Your task to perform on an android device: change the clock style Image 0: 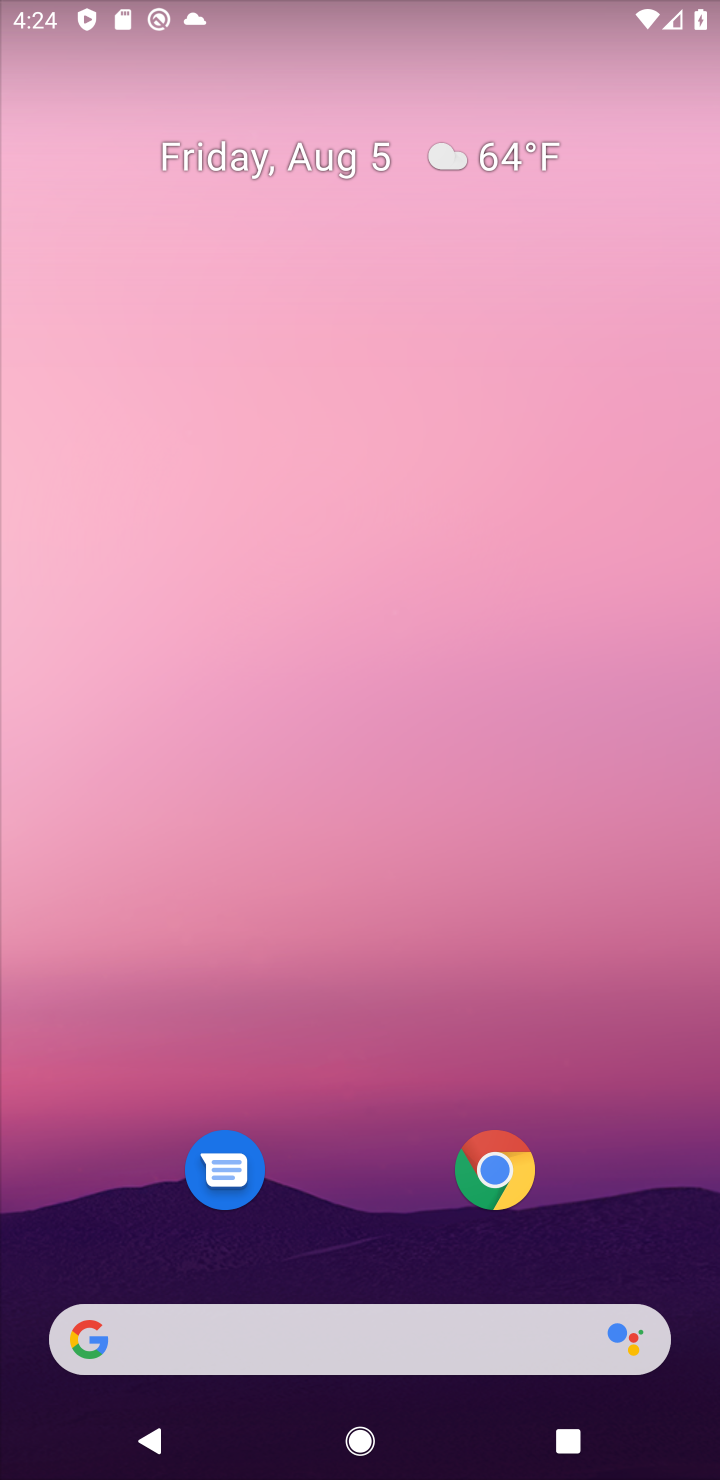
Step 0: press home button
Your task to perform on an android device: change the clock style Image 1: 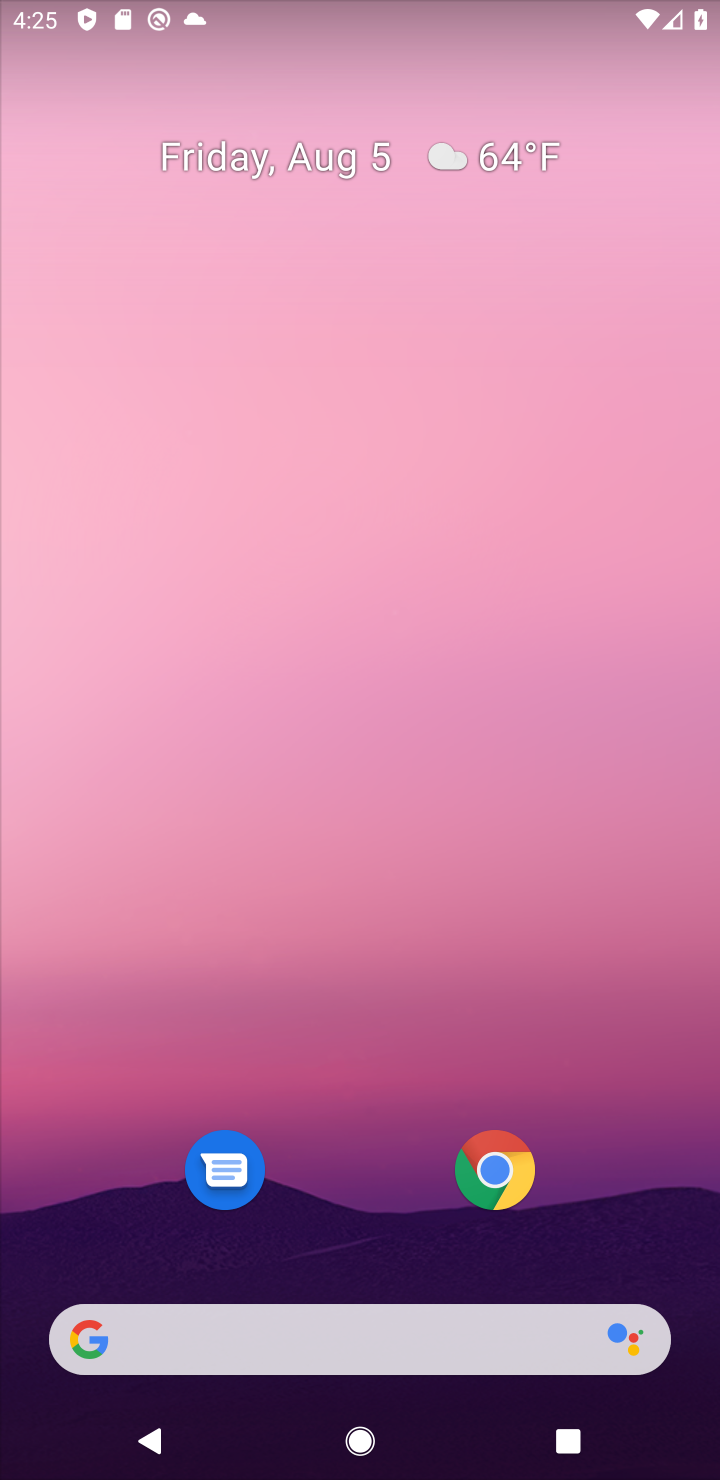
Step 1: drag from (387, 1285) to (359, 426)
Your task to perform on an android device: change the clock style Image 2: 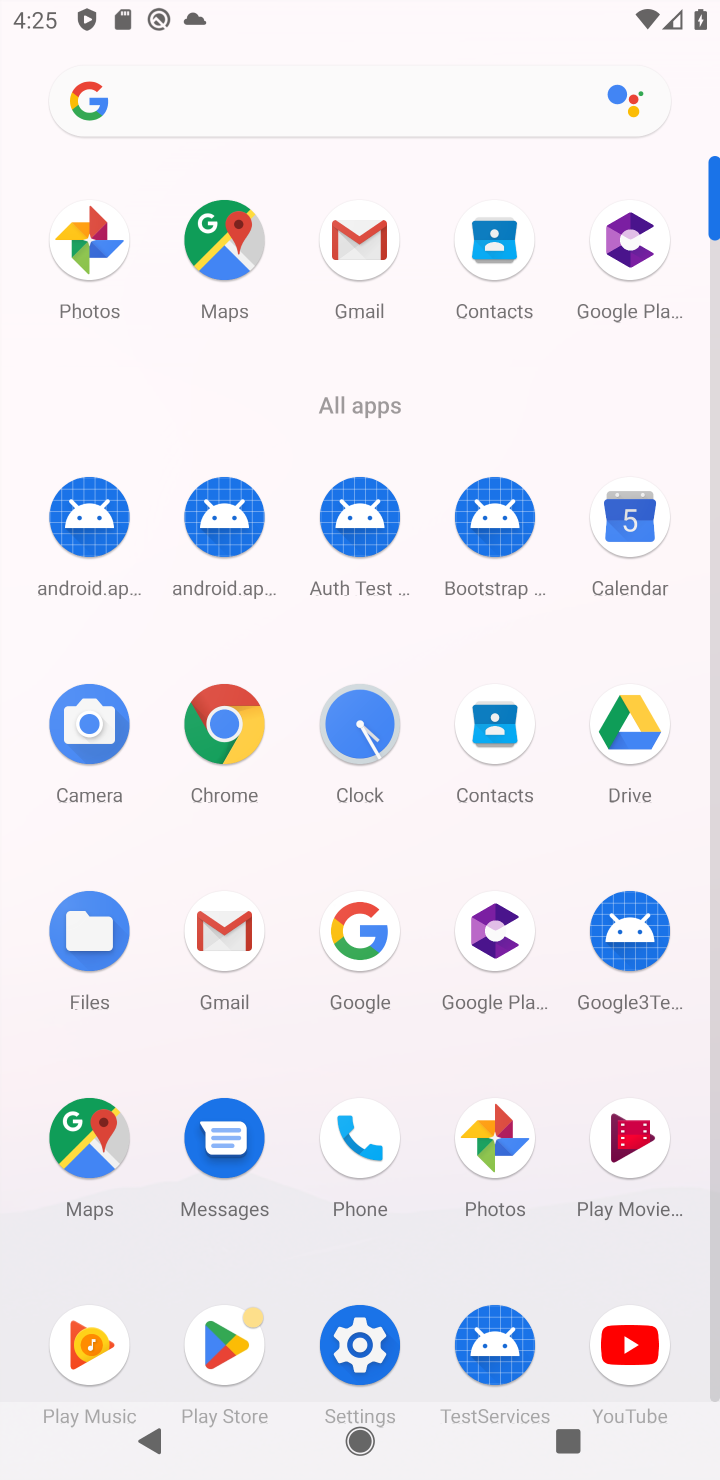
Step 2: click (339, 743)
Your task to perform on an android device: change the clock style Image 3: 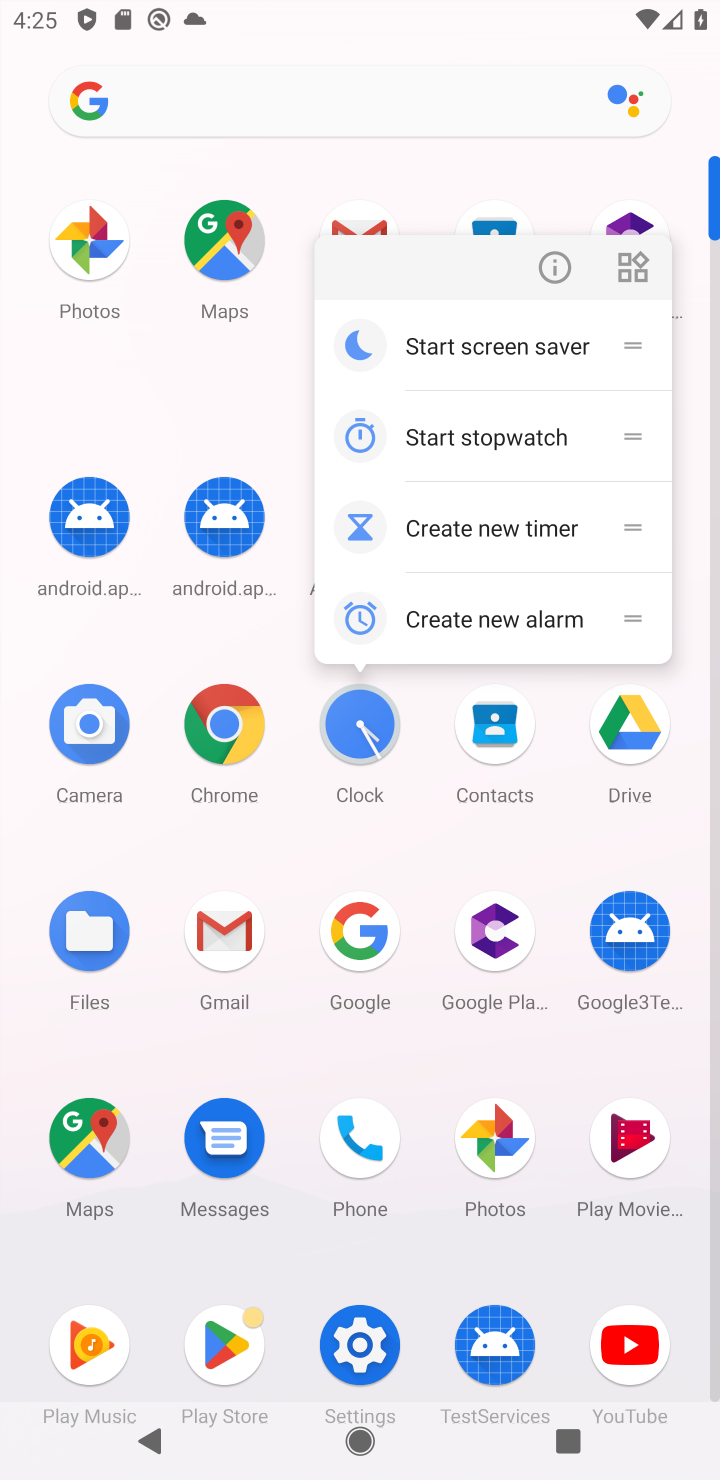
Step 3: click (370, 722)
Your task to perform on an android device: change the clock style Image 4: 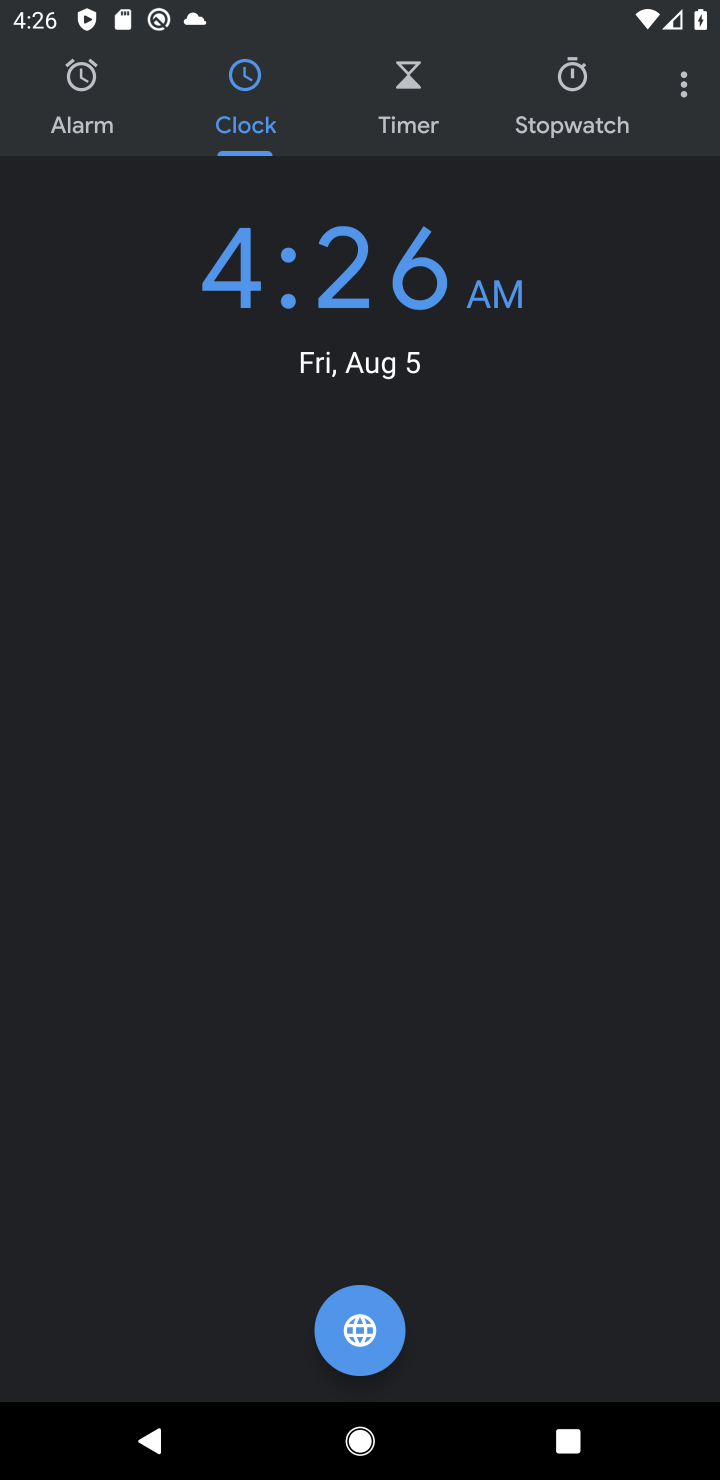
Step 4: click (677, 84)
Your task to perform on an android device: change the clock style Image 5: 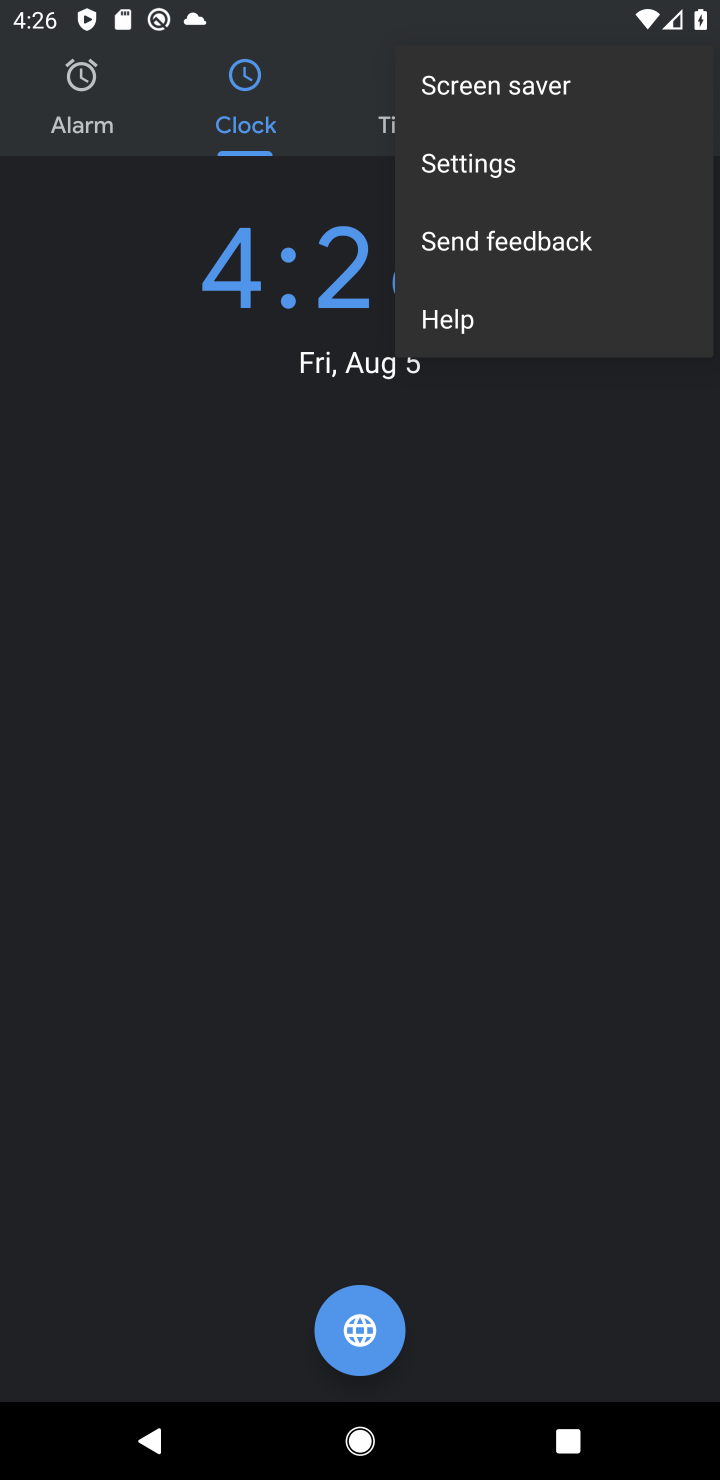
Step 5: click (486, 168)
Your task to perform on an android device: change the clock style Image 6: 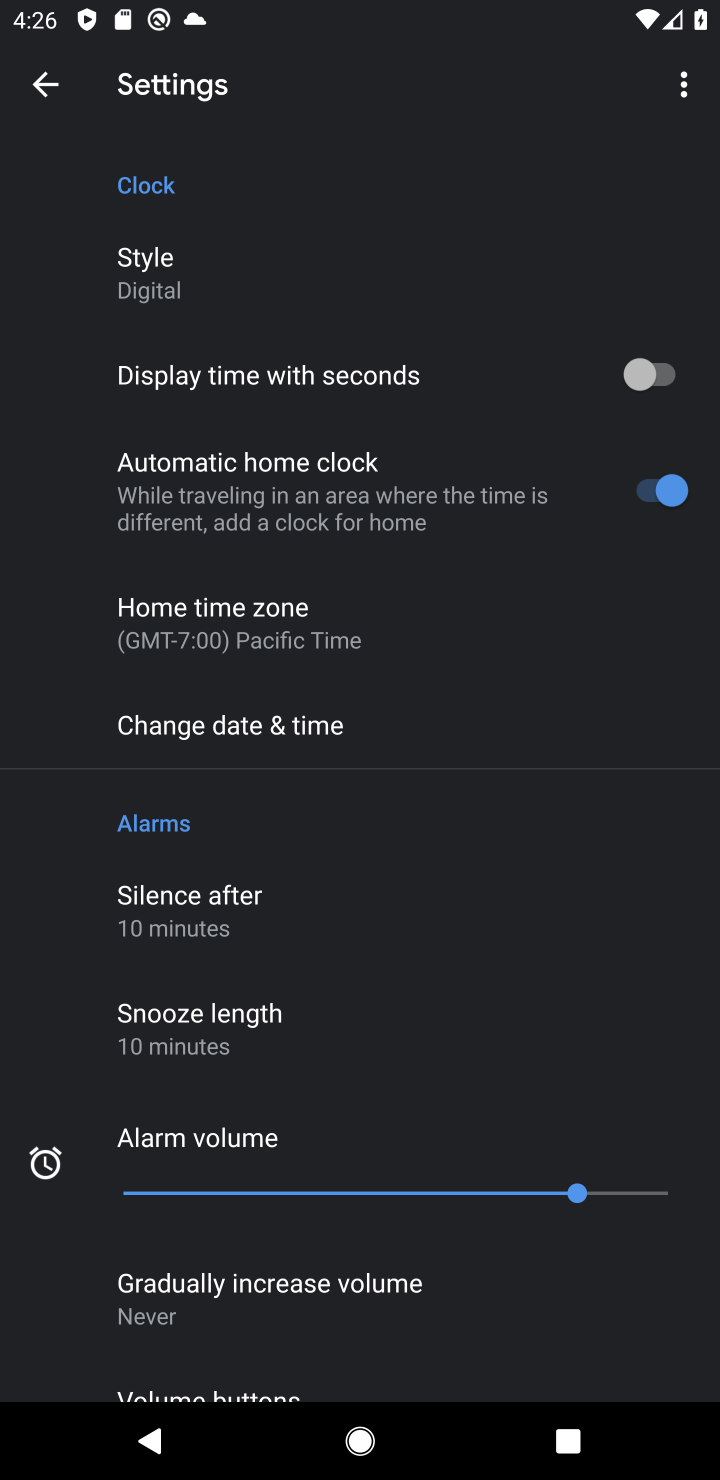
Step 6: click (153, 285)
Your task to perform on an android device: change the clock style Image 7: 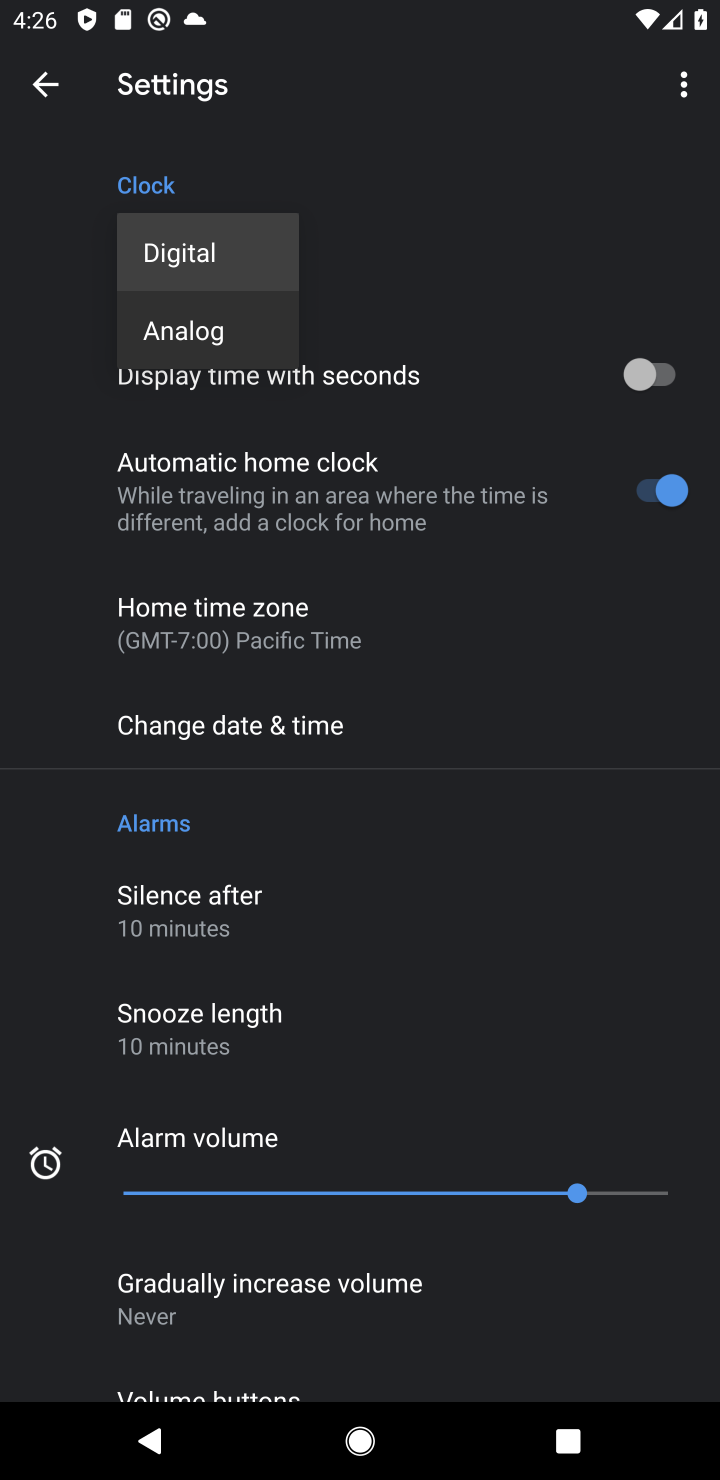
Step 7: click (173, 346)
Your task to perform on an android device: change the clock style Image 8: 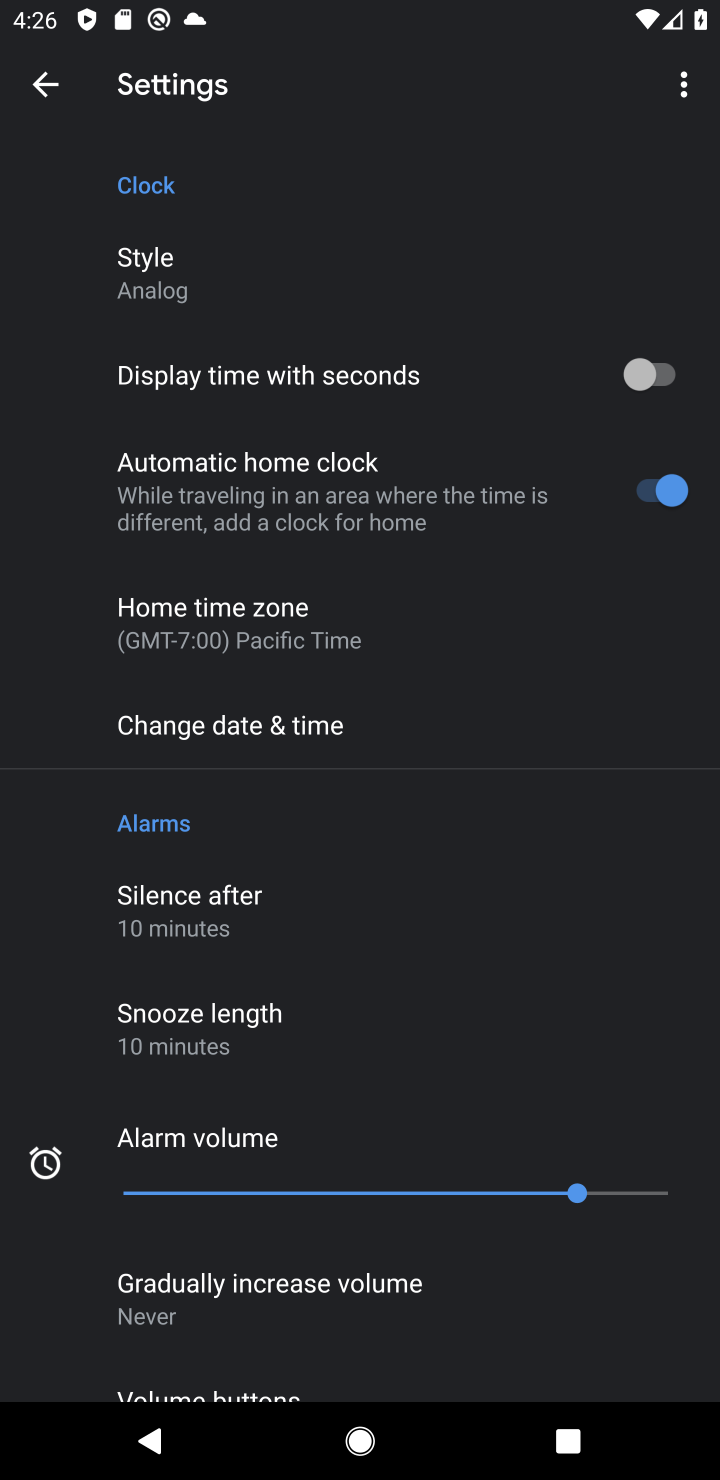
Step 8: task complete